Your task to perform on an android device: turn on bluetooth scan Image 0: 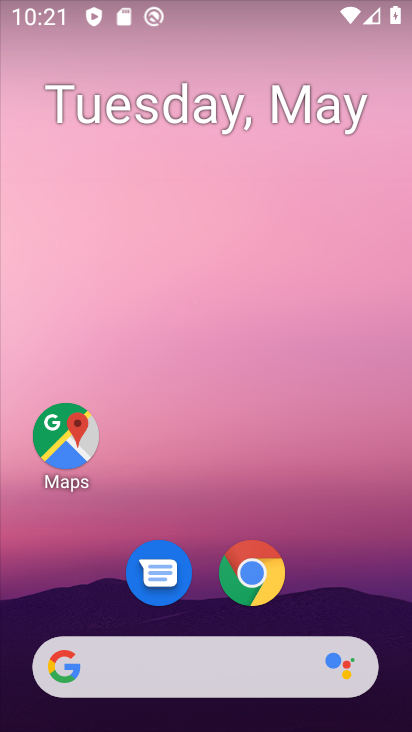
Step 0: drag from (326, 586) to (365, 134)
Your task to perform on an android device: turn on bluetooth scan Image 1: 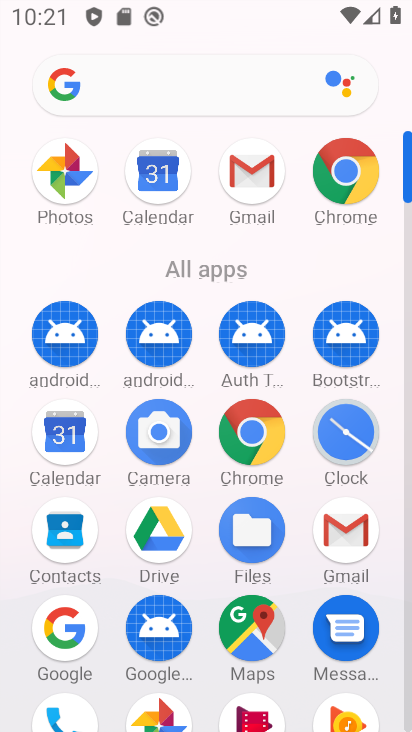
Step 1: drag from (212, 280) to (259, 108)
Your task to perform on an android device: turn on bluetooth scan Image 2: 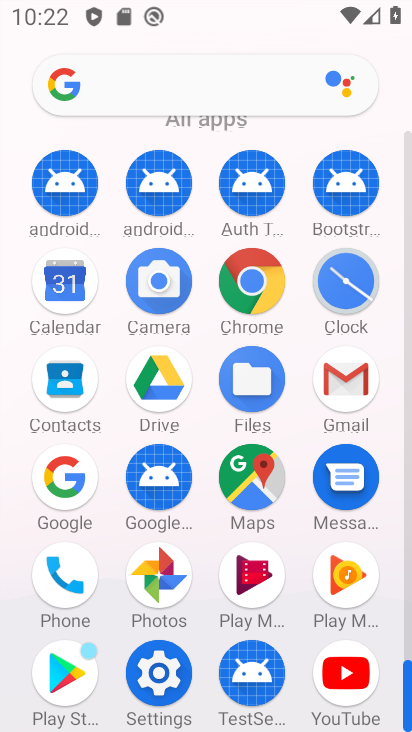
Step 2: click (166, 678)
Your task to perform on an android device: turn on bluetooth scan Image 3: 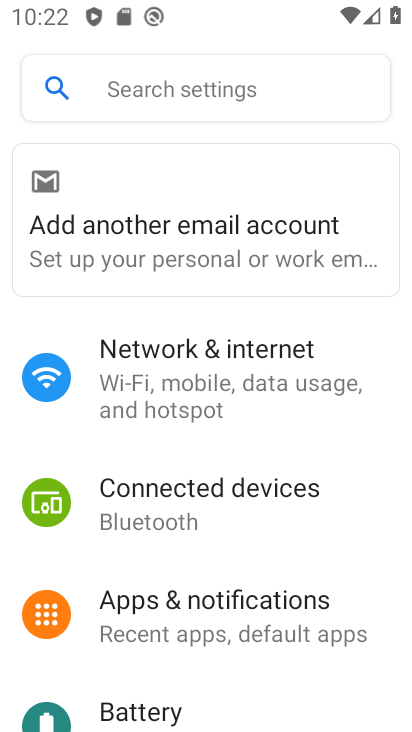
Step 3: drag from (262, 655) to (321, 273)
Your task to perform on an android device: turn on bluetooth scan Image 4: 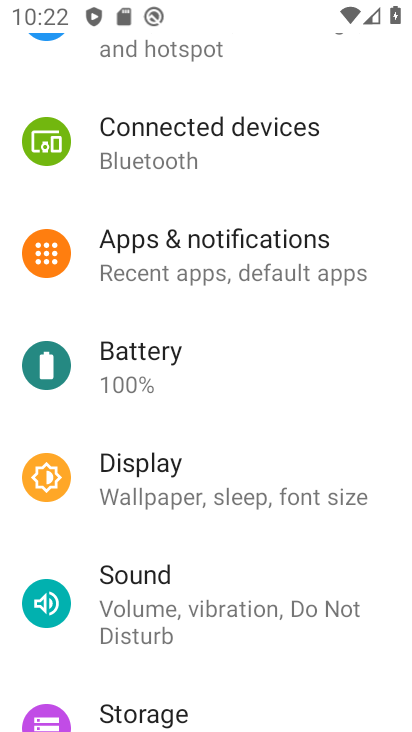
Step 4: drag from (253, 666) to (303, 306)
Your task to perform on an android device: turn on bluetooth scan Image 5: 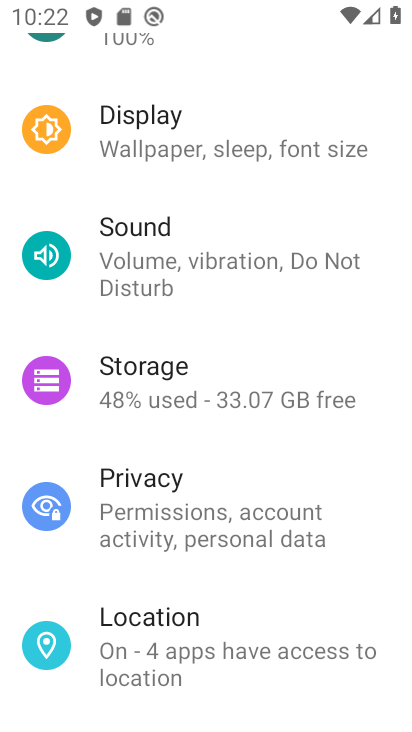
Step 5: click (166, 665)
Your task to perform on an android device: turn on bluetooth scan Image 6: 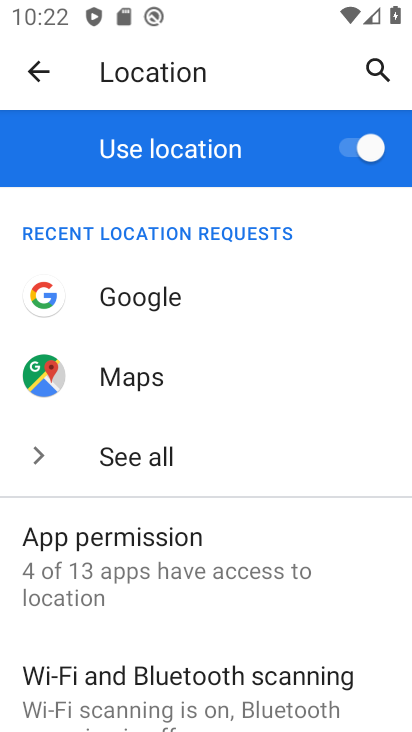
Step 6: click (167, 694)
Your task to perform on an android device: turn on bluetooth scan Image 7: 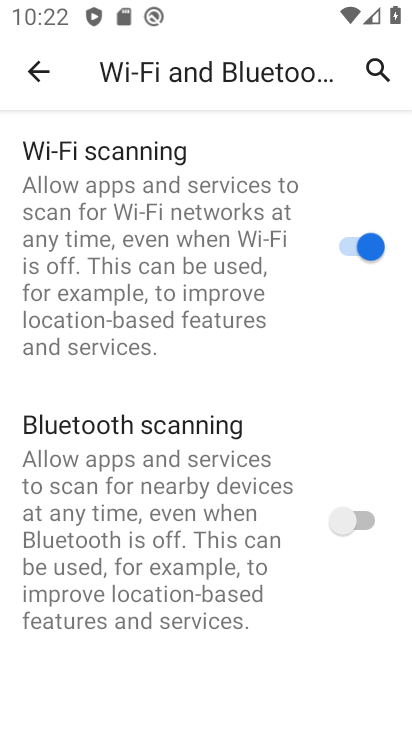
Step 7: click (363, 527)
Your task to perform on an android device: turn on bluetooth scan Image 8: 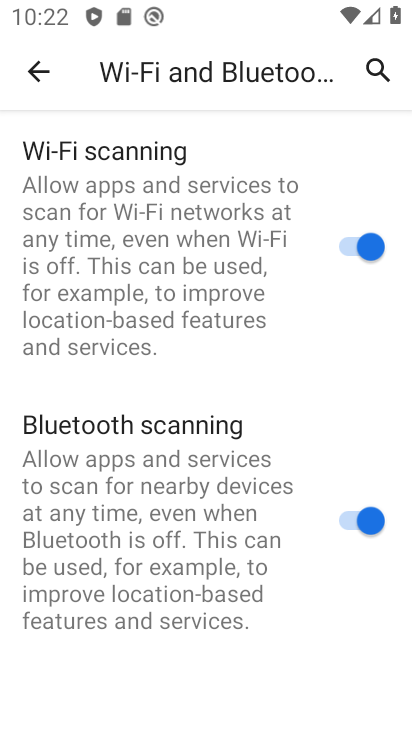
Step 8: task complete